Your task to perform on an android device: Open the Play Movies app and select the watchlist tab. Image 0: 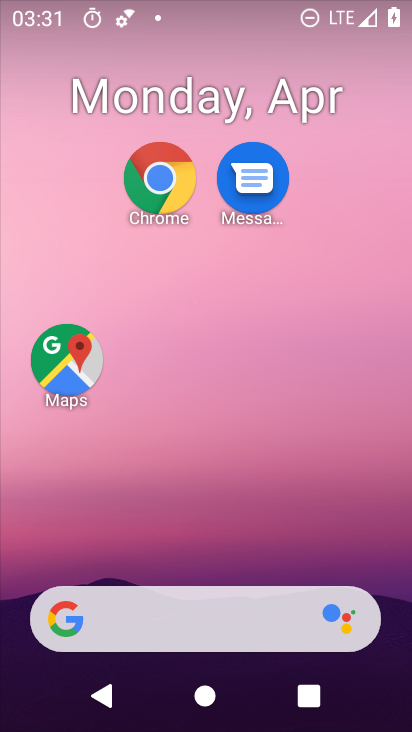
Step 0: drag from (235, 551) to (266, 0)
Your task to perform on an android device: Open the Play Movies app and select the watchlist tab. Image 1: 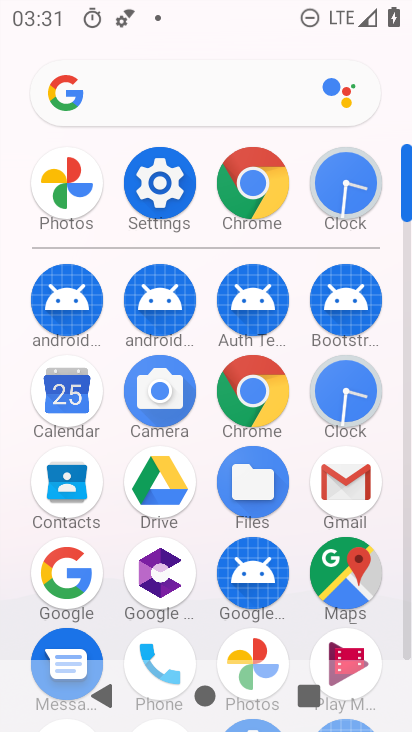
Step 1: drag from (305, 640) to (280, 248)
Your task to perform on an android device: Open the Play Movies app and select the watchlist tab. Image 2: 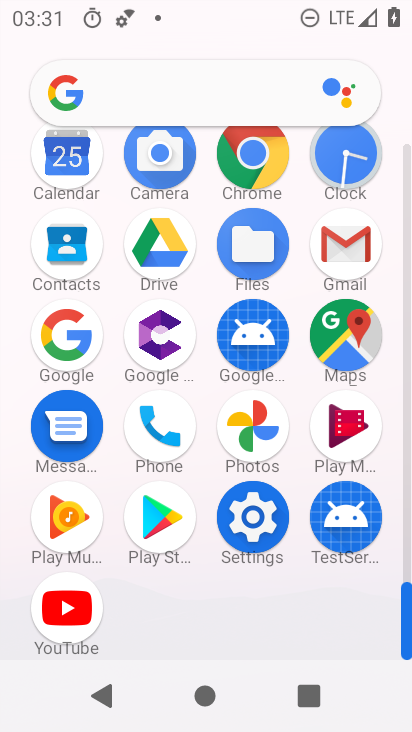
Step 2: click (335, 429)
Your task to perform on an android device: Open the Play Movies app and select the watchlist tab. Image 3: 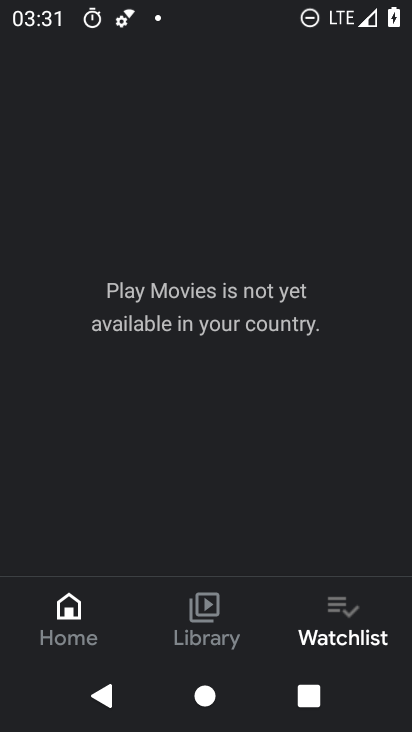
Step 3: click (342, 622)
Your task to perform on an android device: Open the Play Movies app and select the watchlist tab. Image 4: 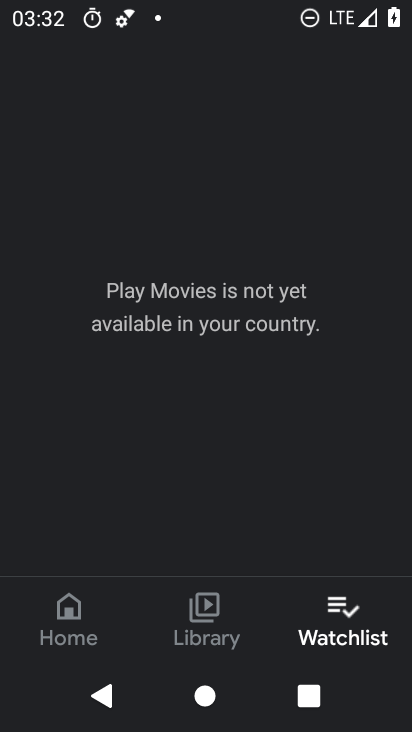
Step 4: task complete